Your task to perform on an android device: toggle data saver in the chrome app Image 0: 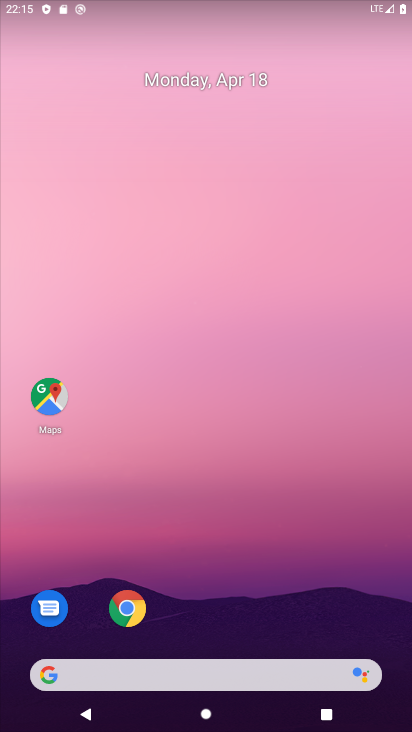
Step 0: click (132, 613)
Your task to perform on an android device: toggle data saver in the chrome app Image 1: 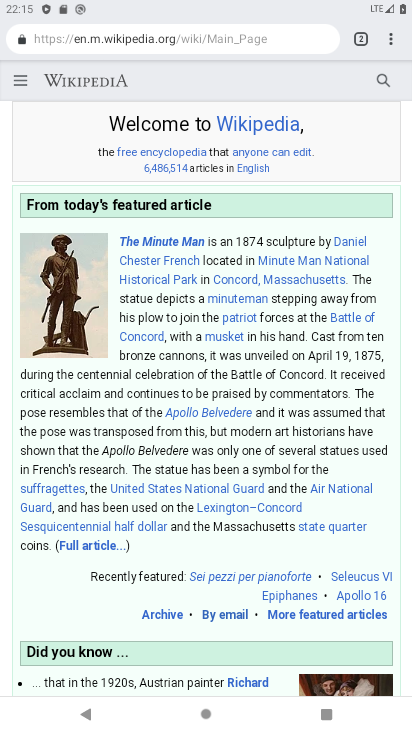
Step 1: click (382, 33)
Your task to perform on an android device: toggle data saver in the chrome app Image 2: 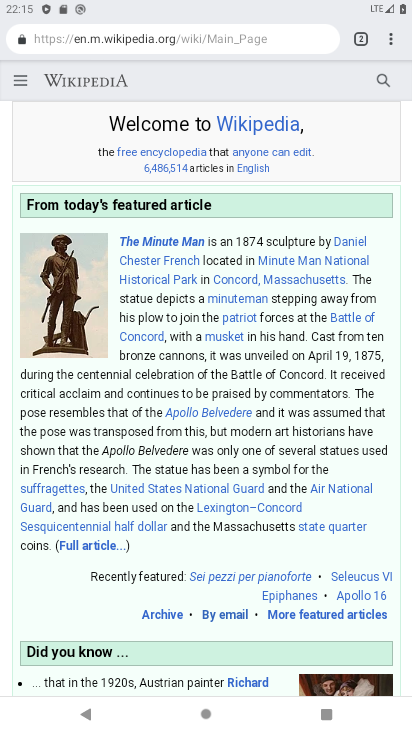
Step 2: click (392, 38)
Your task to perform on an android device: toggle data saver in the chrome app Image 3: 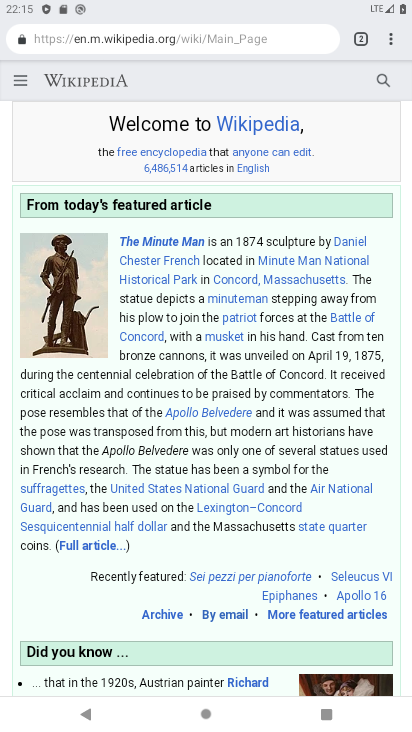
Step 3: click (386, 41)
Your task to perform on an android device: toggle data saver in the chrome app Image 4: 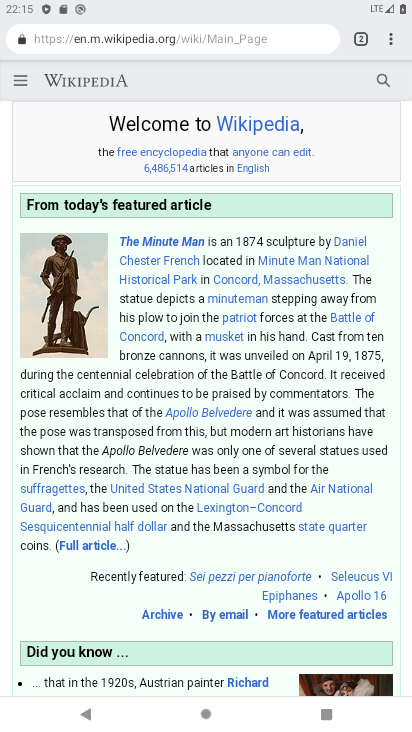
Step 4: click (387, 37)
Your task to perform on an android device: toggle data saver in the chrome app Image 5: 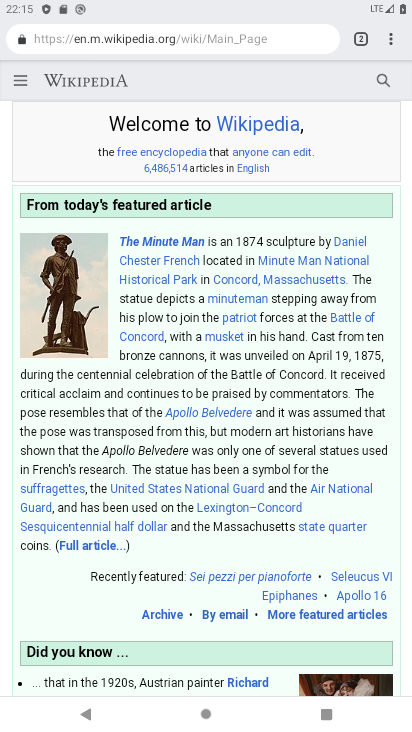
Step 5: click (392, 37)
Your task to perform on an android device: toggle data saver in the chrome app Image 6: 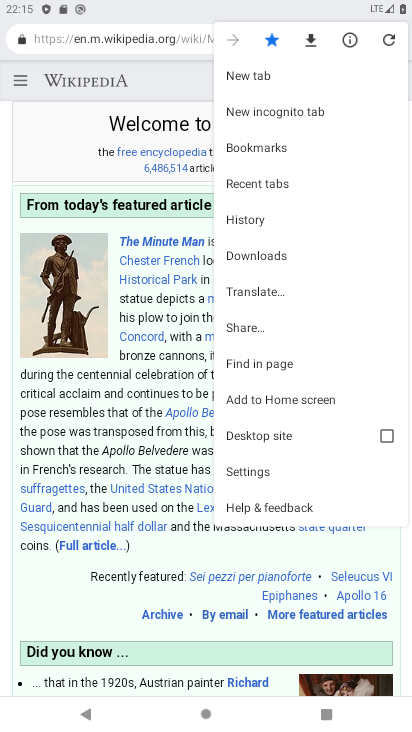
Step 6: click (269, 476)
Your task to perform on an android device: toggle data saver in the chrome app Image 7: 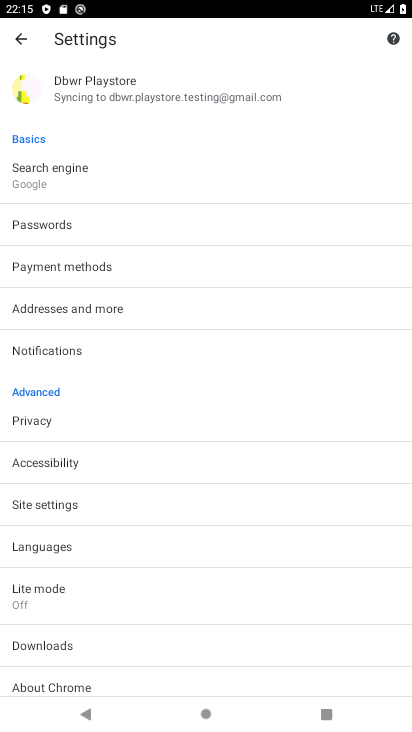
Step 7: click (136, 602)
Your task to perform on an android device: toggle data saver in the chrome app Image 8: 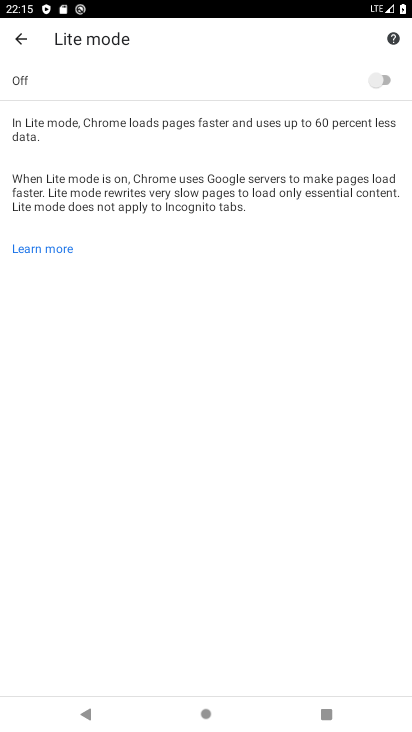
Step 8: click (383, 80)
Your task to perform on an android device: toggle data saver in the chrome app Image 9: 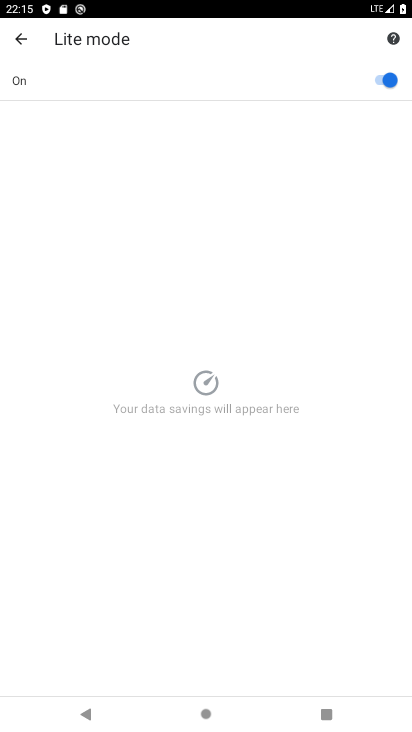
Step 9: task complete